Your task to perform on an android device: toggle wifi Image 0: 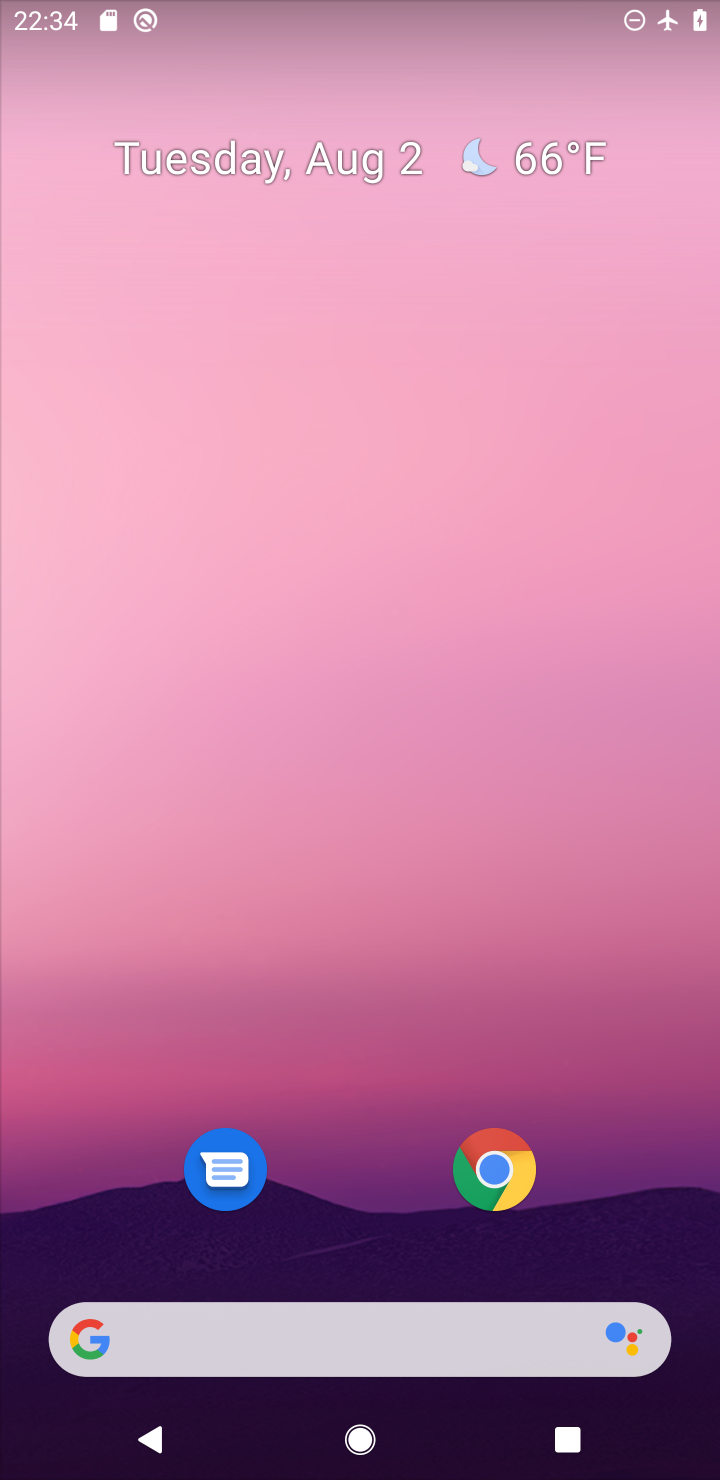
Step 0: drag from (329, 1203) to (382, 367)
Your task to perform on an android device: toggle wifi Image 1: 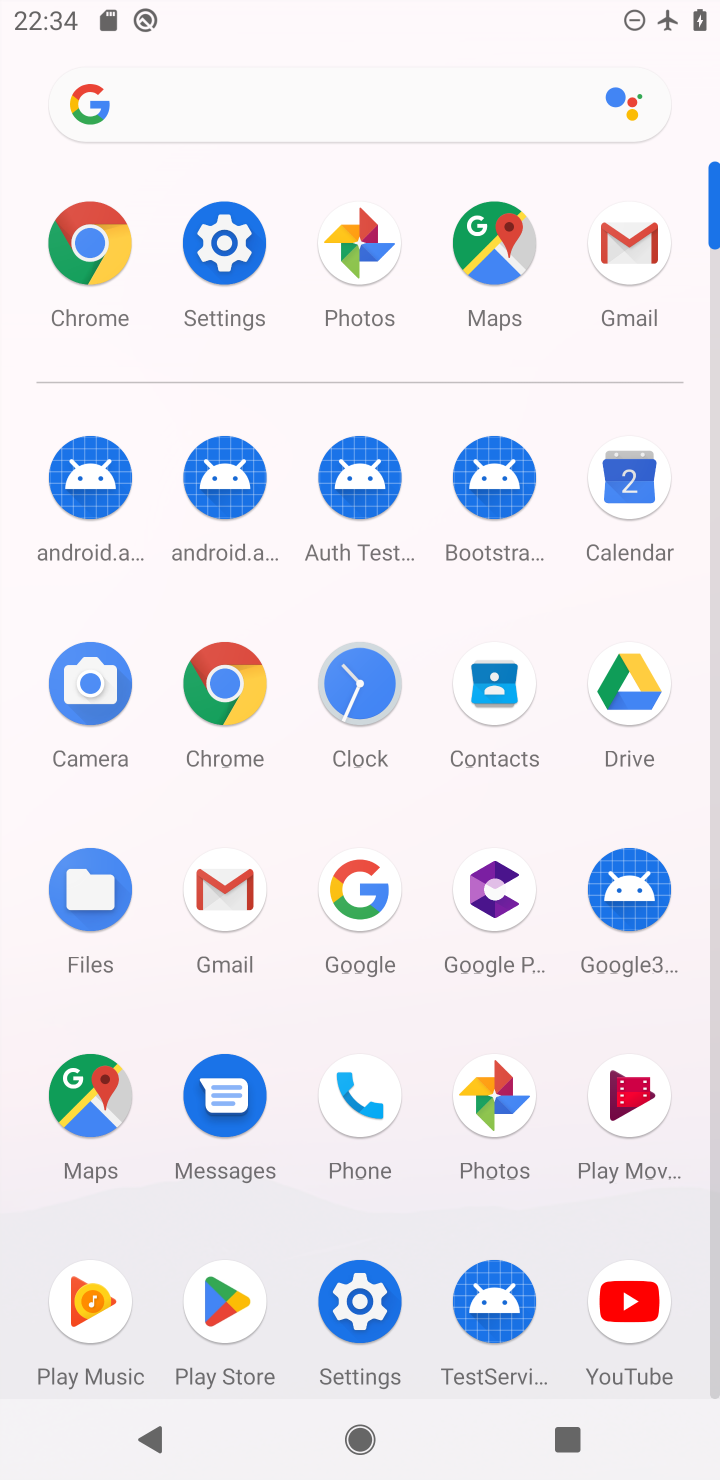
Step 1: click (226, 250)
Your task to perform on an android device: toggle wifi Image 2: 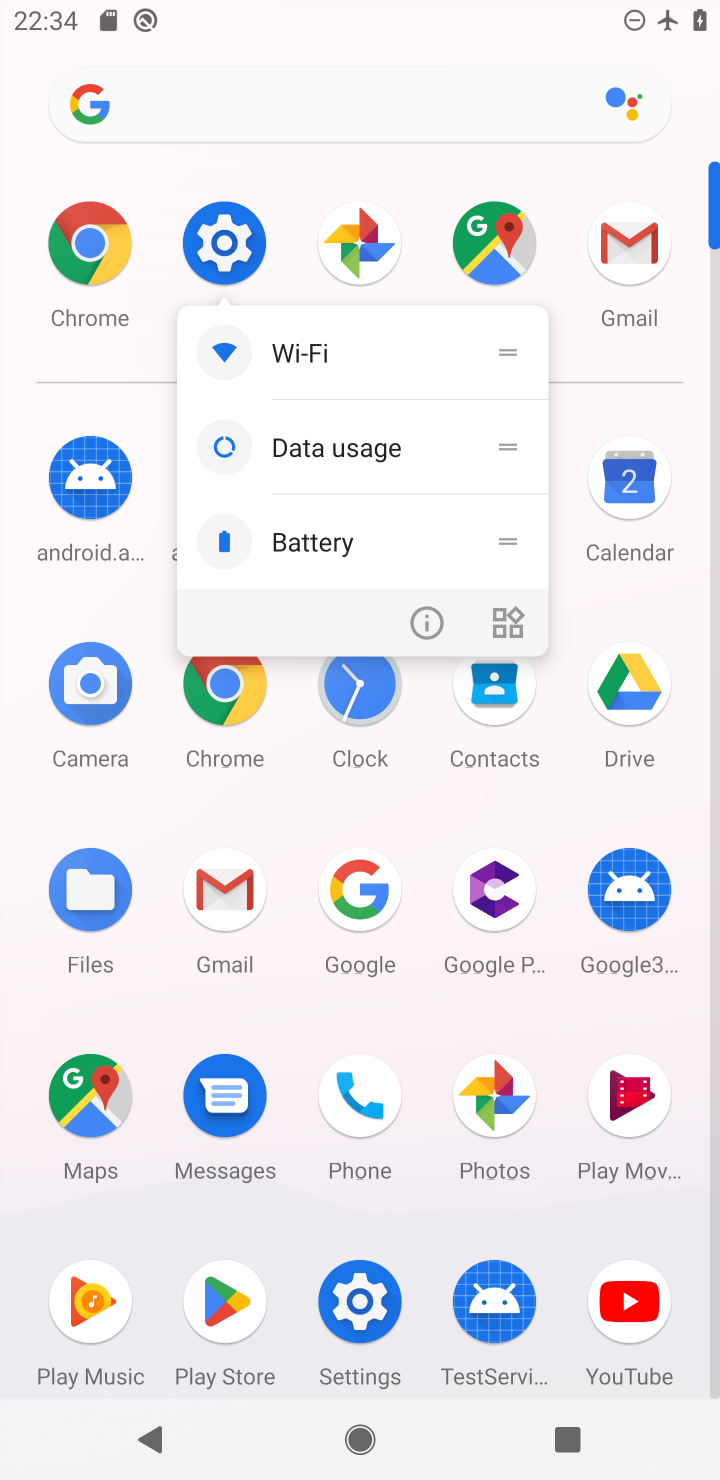
Step 2: click (226, 251)
Your task to perform on an android device: toggle wifi Image 3: 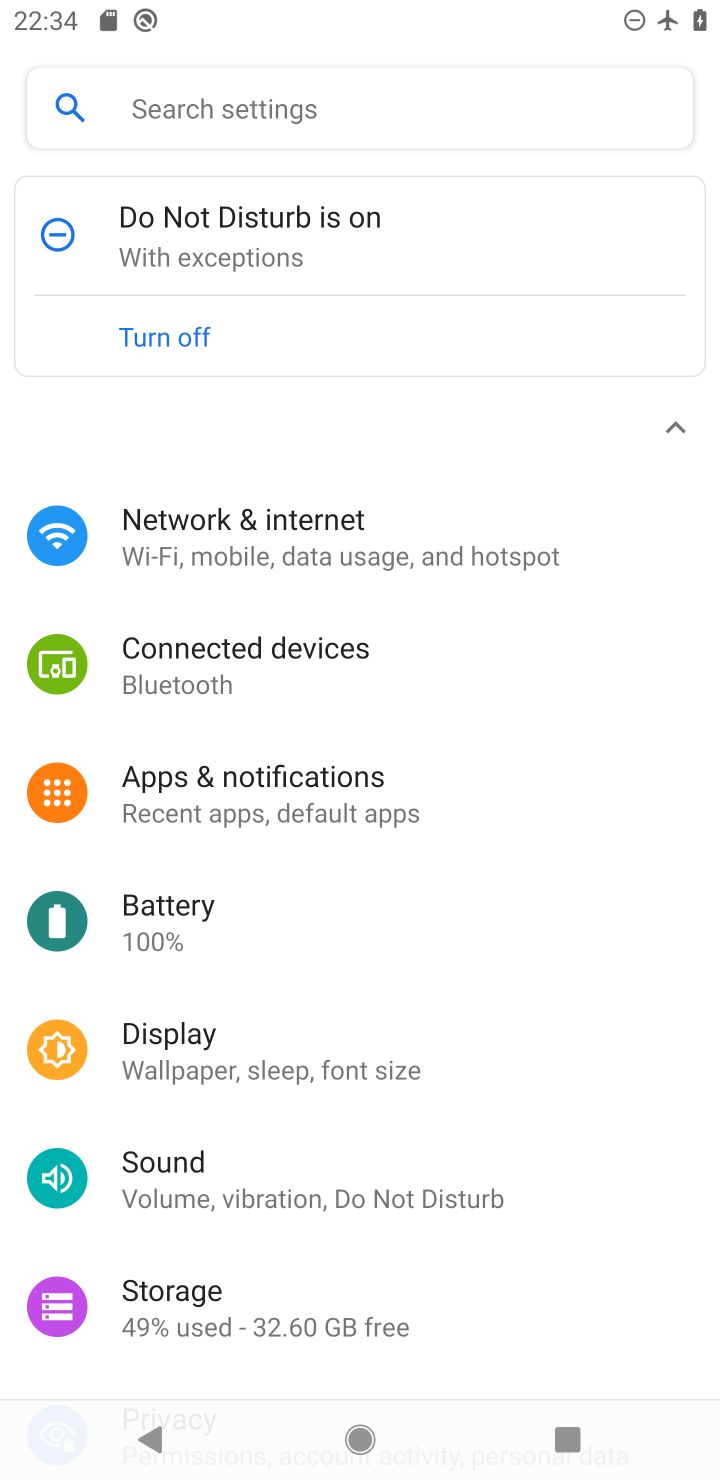
Step 3: click (263, 537)
Your task to perform on an android device: toggle wifi Image 4: 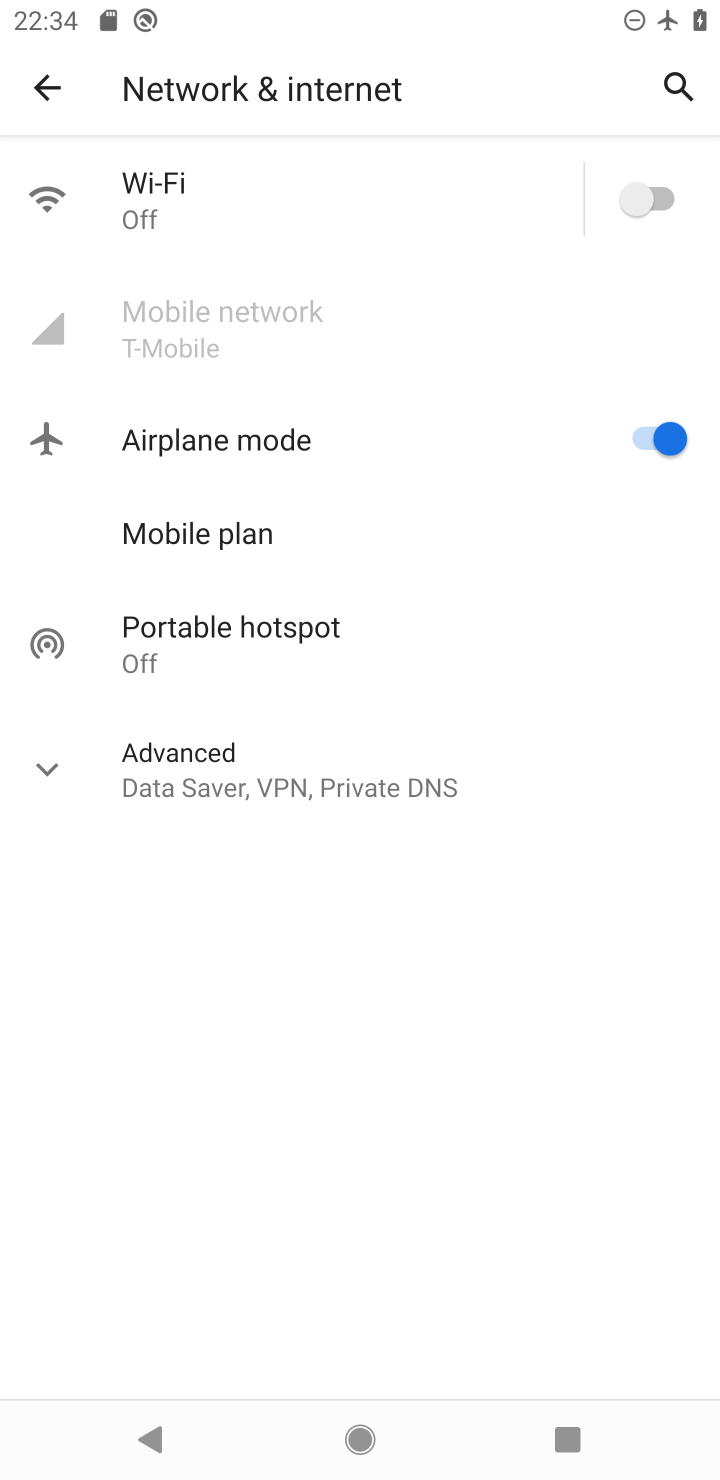
Step 4: click (644, 197)
Your task to perform on an android device: toggle wifi Image 5: 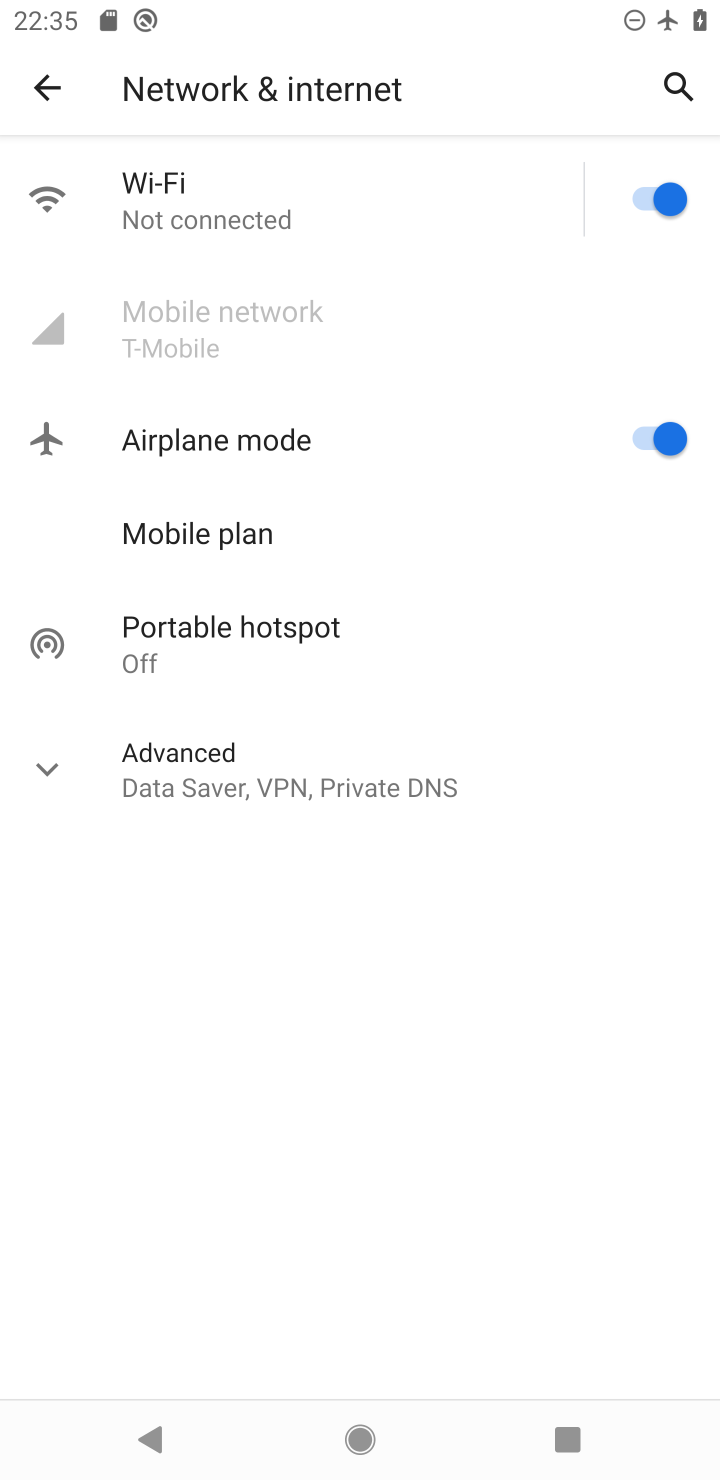
Step 5: task complete